Your task to perform on an android device: Open Maps and search for coffee Image 0: 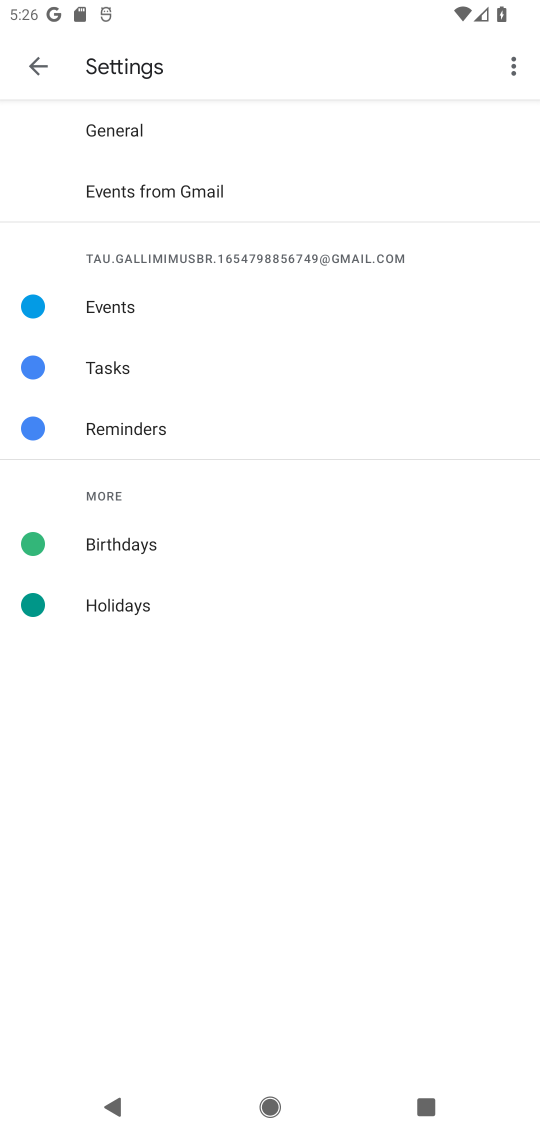
Step 0: press home button
Your task to perform on an android device: Open Maps and search for coffee Image 1: 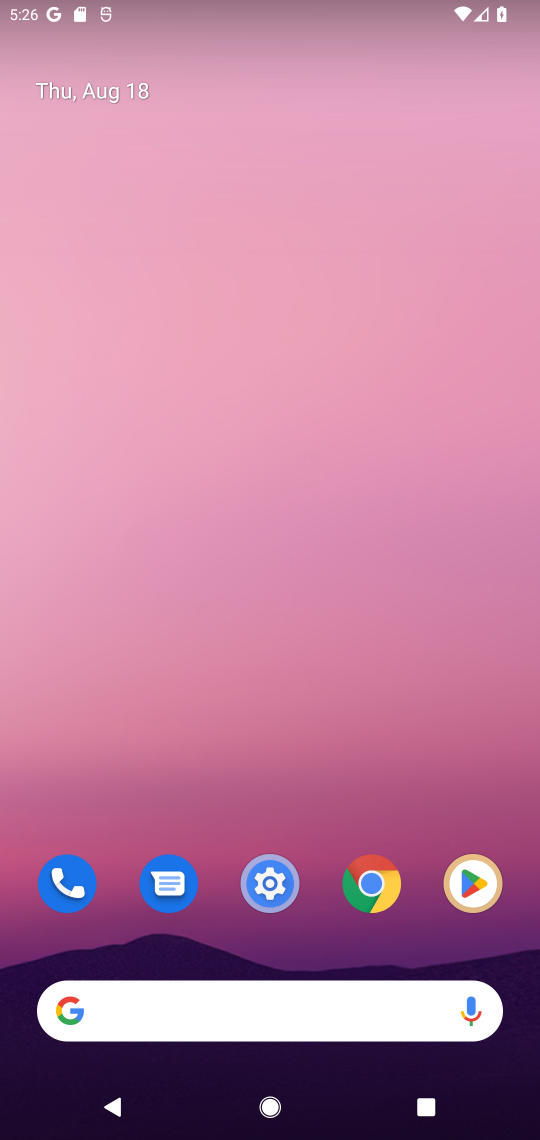
Step 1: drag from (305, 926) to (316, 73)
Your task to perform on an android device: Open Maps and search for coffee Image 2: 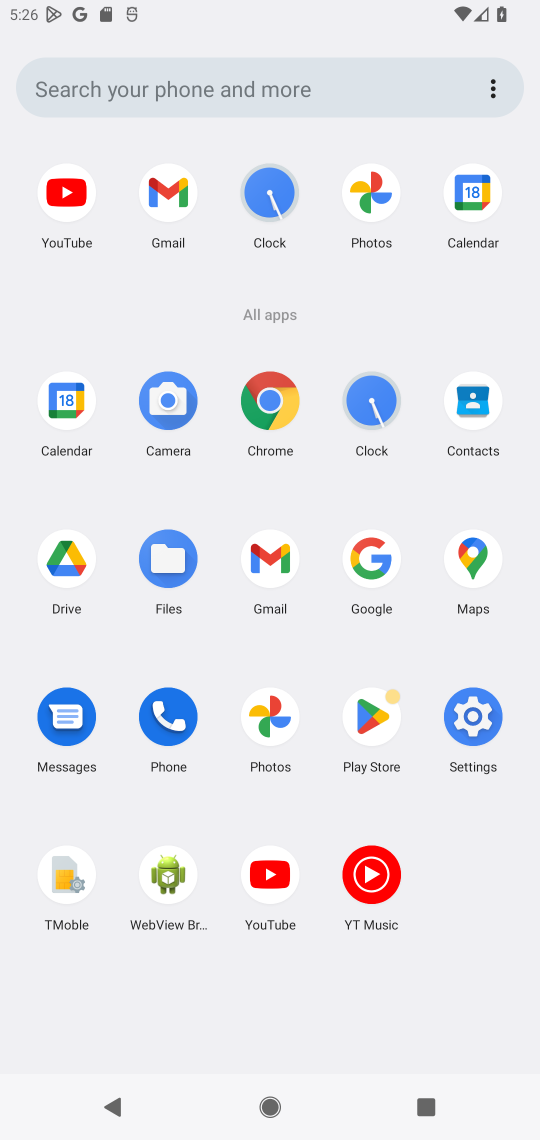
Step 2: click (481, 559)
Your task to perform on an android device: Open Maps and search for coffee Image 3: 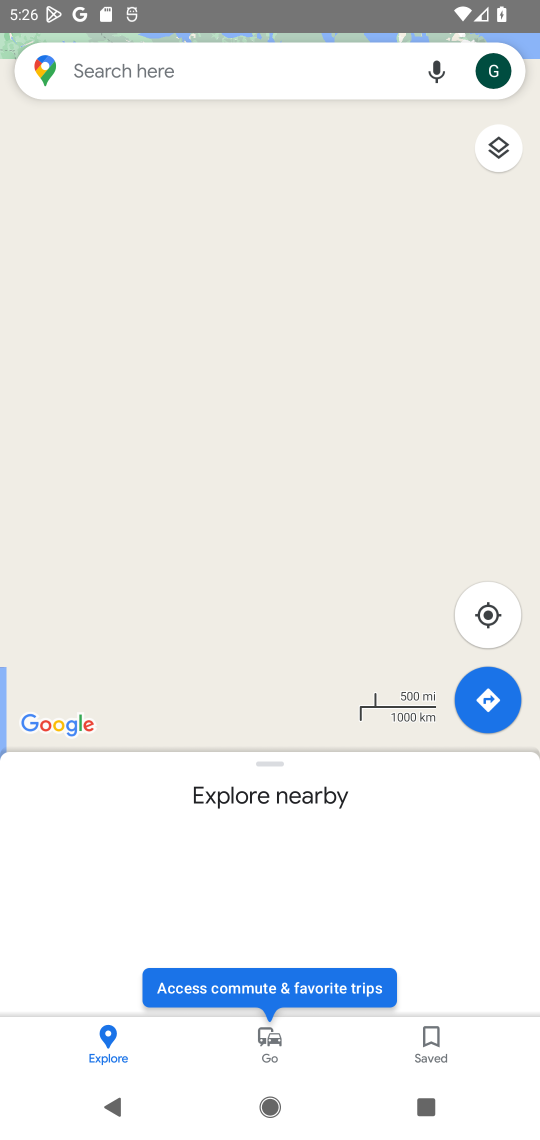
Step 3: click (167, 78)
Your task to perform on an android device: Open Maps and search for coffee Image 4: 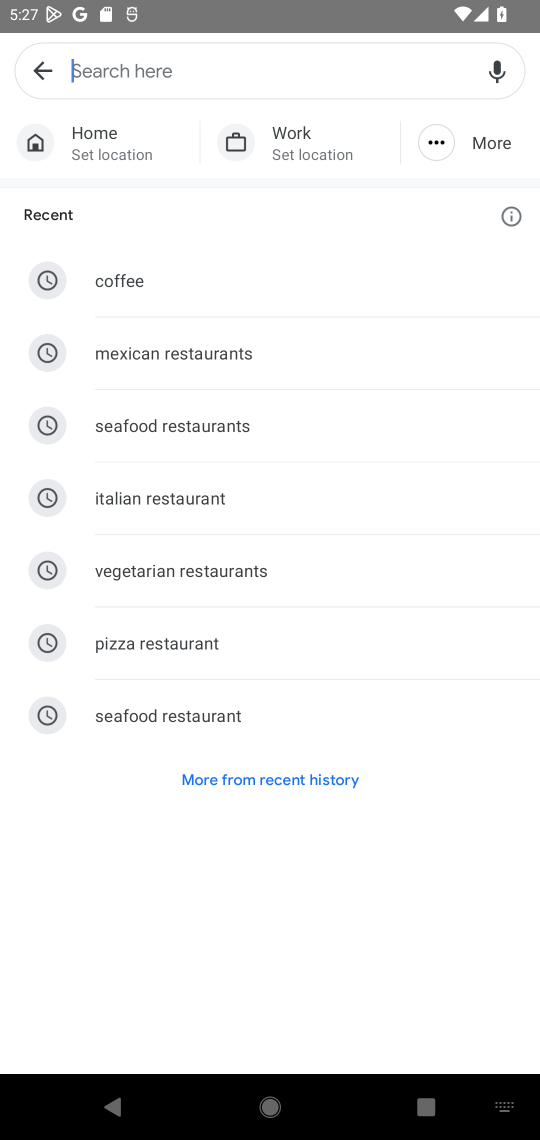
Step 4: type "coffee"
Your task to perform on an android device: Open Maps and search for coffee Image 5: 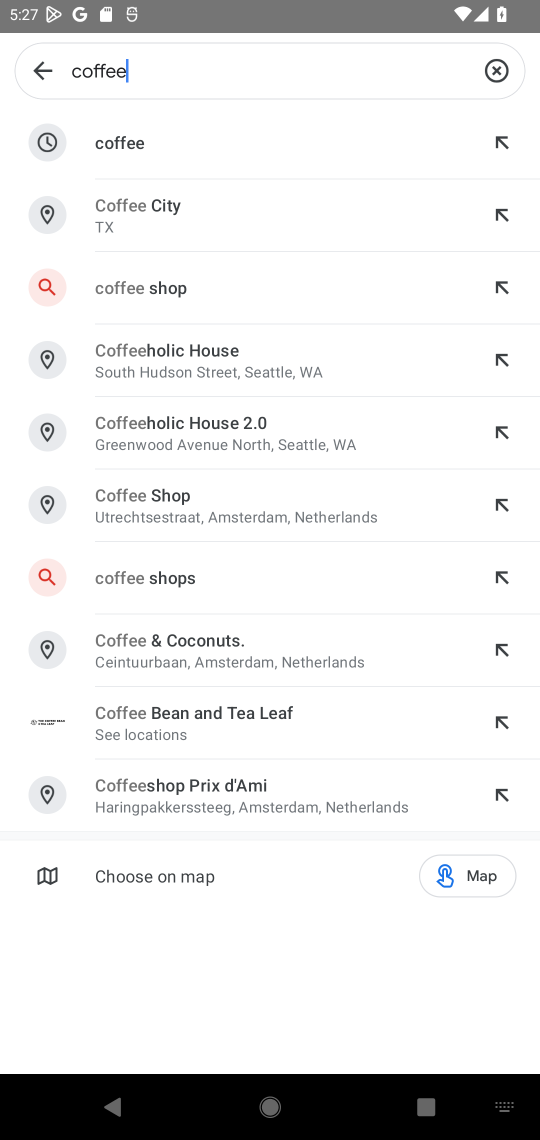
Step 5: click (121, 141)
Your task to perform on an android device: Open Maps and search for coffee Image 6: 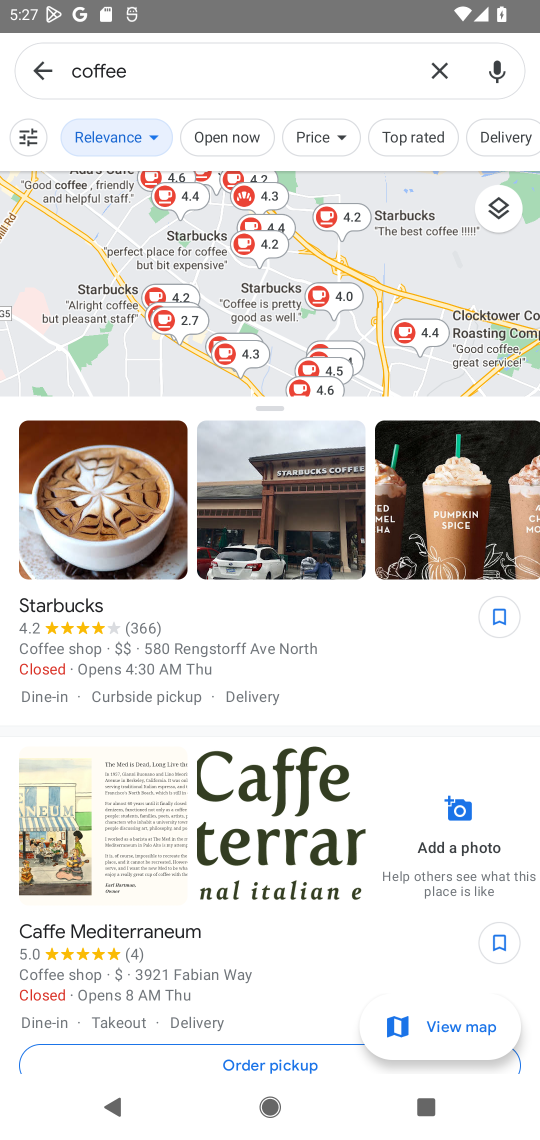
Step 6: task complete